Your task to perform on an android device: turn notification dots on Image 0: 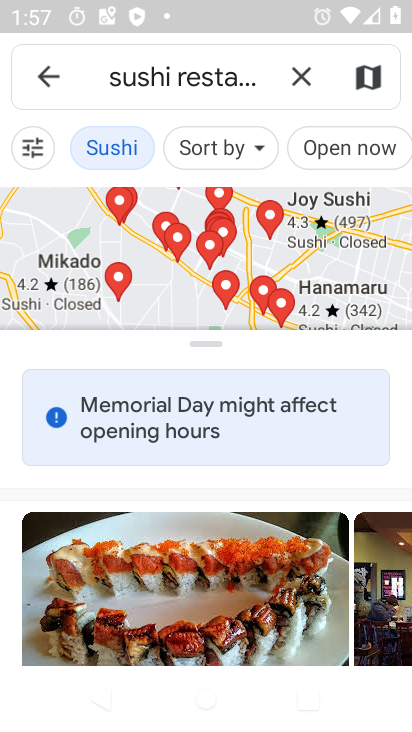
Step 0: press home button
Your task to perform on an android device: turn notification dots on Image 1: 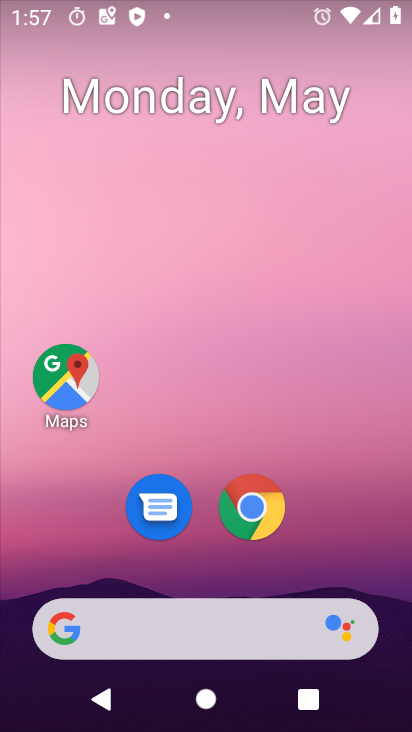
Step 1: drag from (225, 722) to (228, 278)
Your task to perform on an android device: turn notification dots on Image 2: 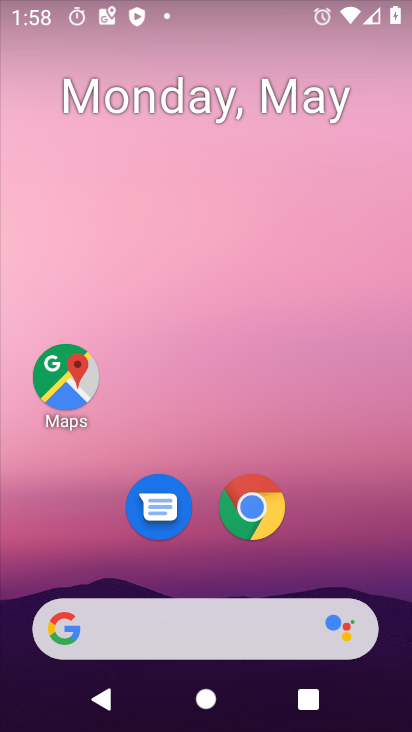
Step 2: drag from (231, 725) to (222, 161)
Your task to perform on an android device: turn notification dots on Image 3: 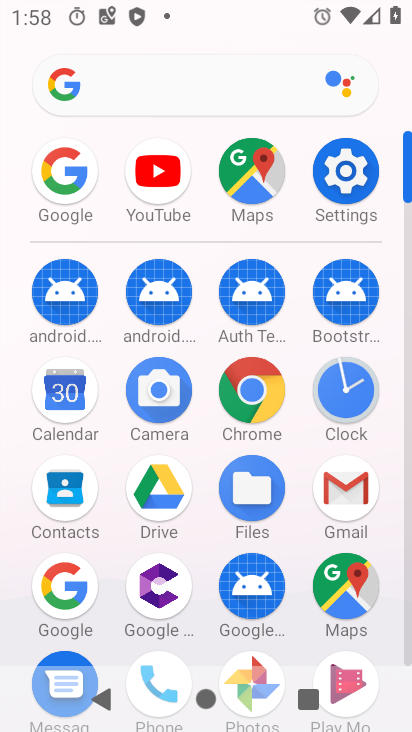
Step 3: click (349, 165)
Your task to perform on an android device: turn notification dots on Image 4: 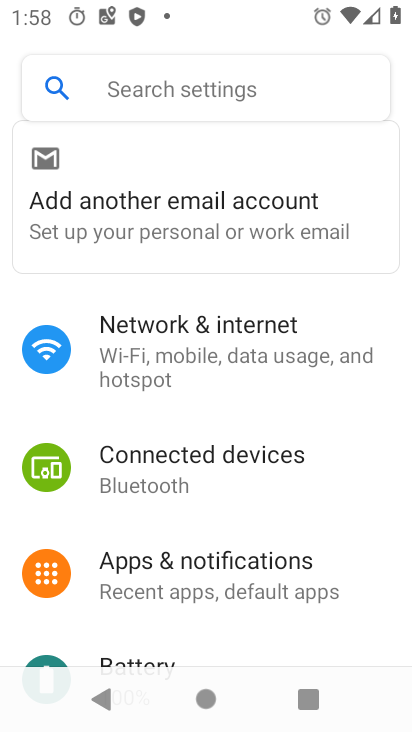
Step 4: click (209, 554)
Your task to perform on an android device: turn notification dots on Image 5: 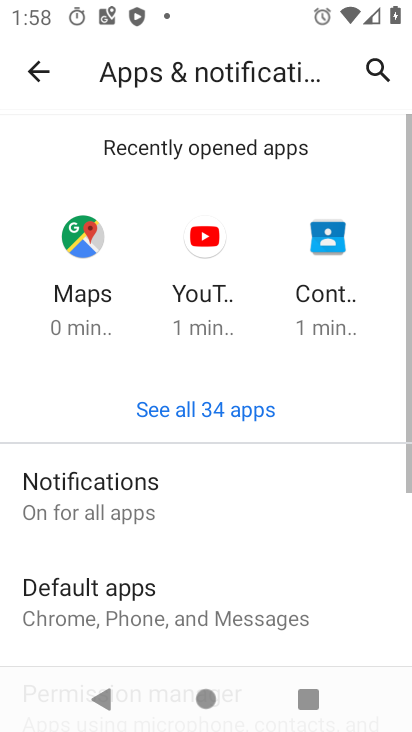
Step 5: drag from (196, 653) to (191, 606)
Your task to perform on an android device: turn notification dots on Image 6: 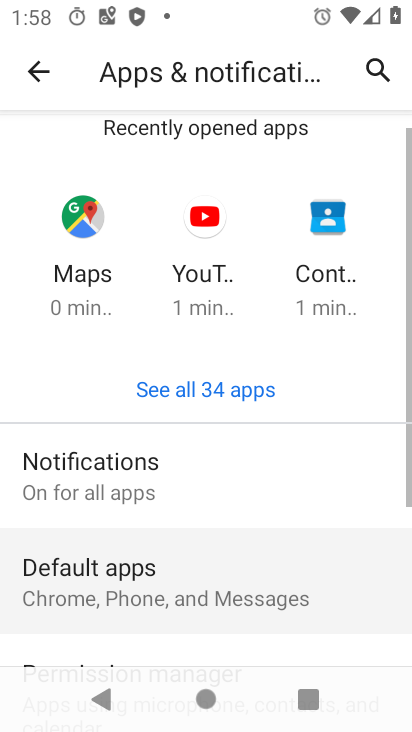
Step 6: drag from (184, 516) to (183, 345)
Your task to perform on an android device: turn notification dots on Image 7: 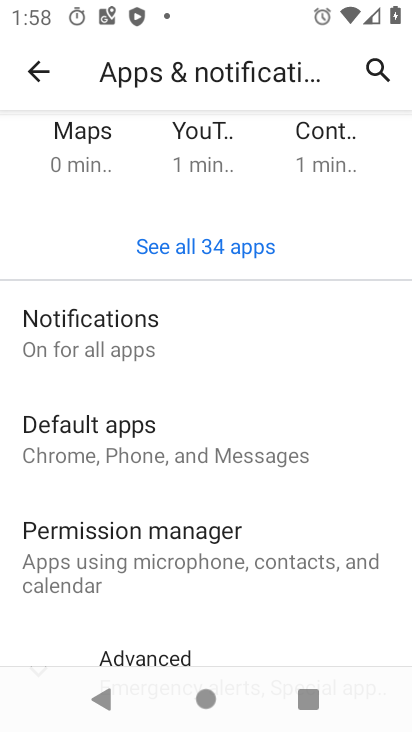
Step 7: click (86, 328)
Your task to perform on an android device: turn notification dots on Image 8: 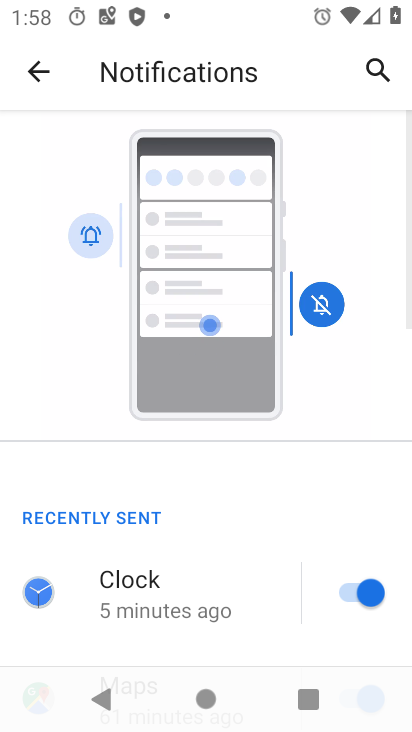
Step 8: drag from (236, 645) to (235, 546)
Your task to perform on an android device: turn notification dots on Image 9: 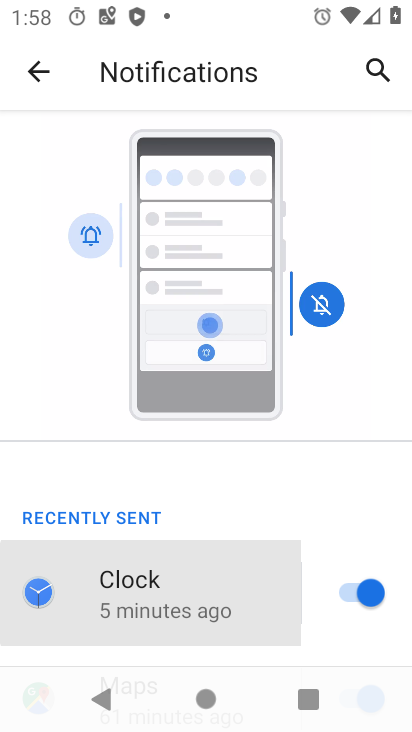
Step 9: drag from (230, 354) to (229, 300)
Your task to perform on an android device: turn notification dots on Image 10: 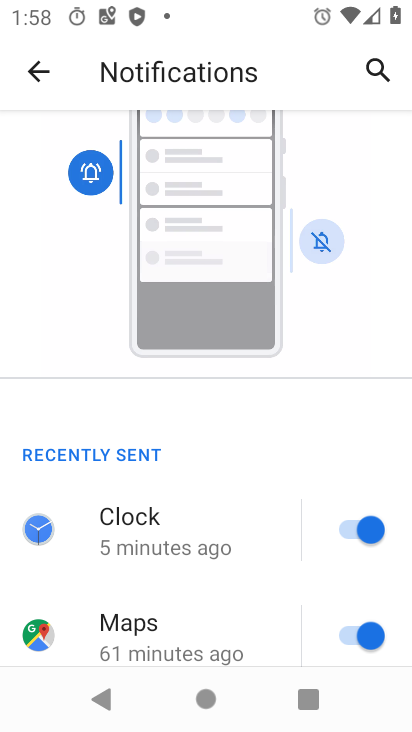
Step 10: drag from (239, 639) to (239, 557)
Your task to perform on an android device: turn notification dots on Image 11: 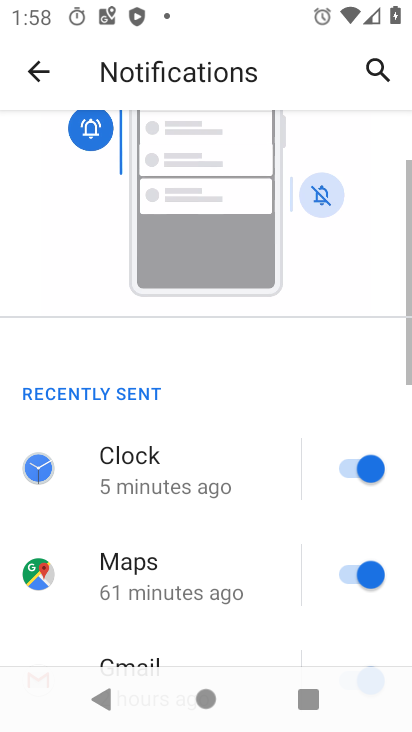
Step 11: drag from (238, 405) to (236, 323)
Your task to perform on an android device: turn notification dots on Image 12: 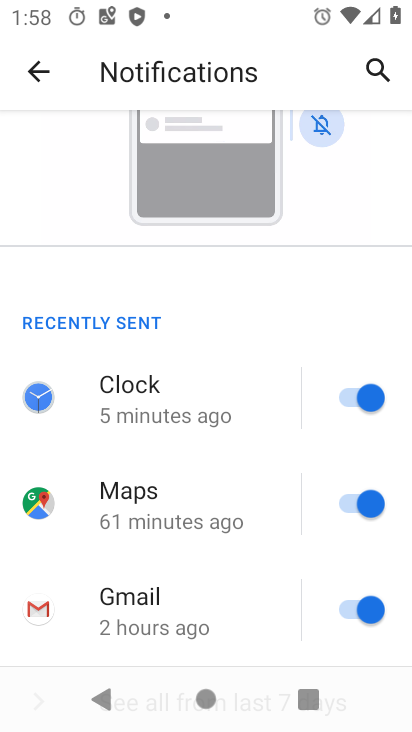
Step 12: drag from (236, 640) to (239, 295)
Your task to perform on an android device: turn notification dots on Image 13: 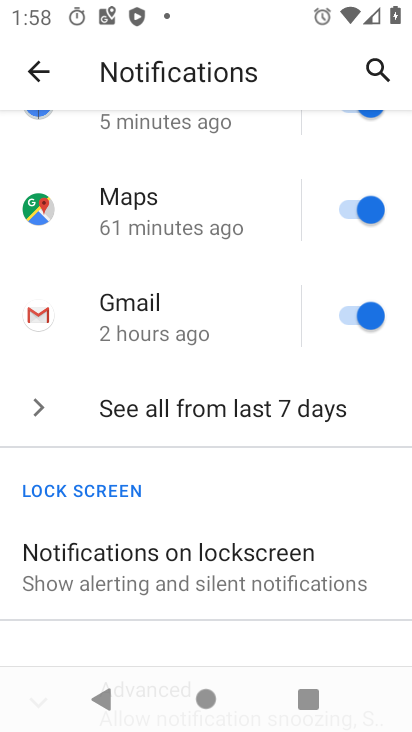
Step 13: drag from (270, 622) to (262, 342)
Your task to perform on an android device: turn notification dots on Image 14: 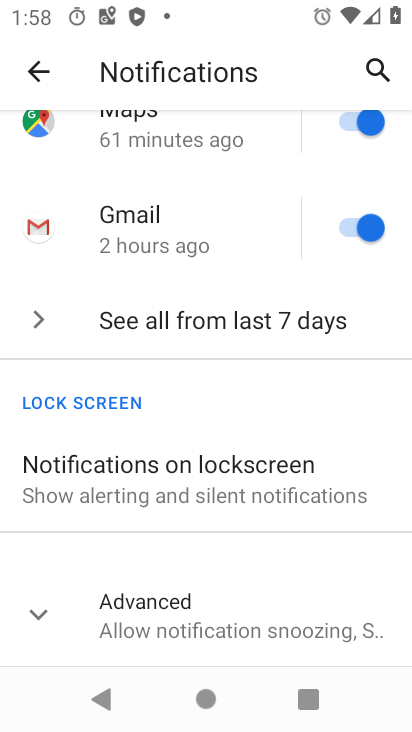
Step 14: click (154, 615)
Your task to perform on an android device: turn notification dots on Image 15: 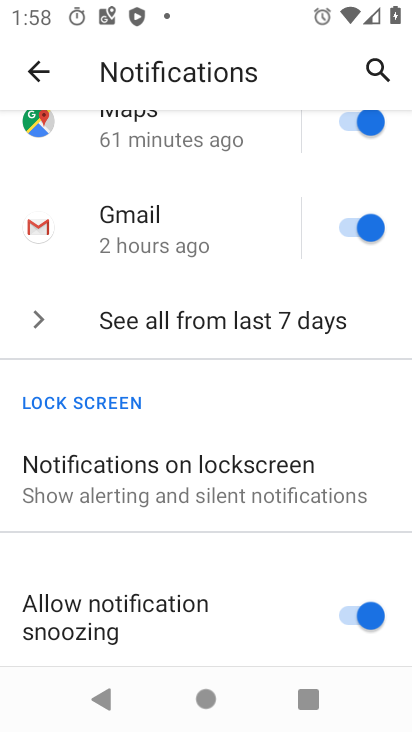
Step 15: drag from (210, 643) to (220, 345)
Your task to perform on an android device: turn notification dots on Image 16: 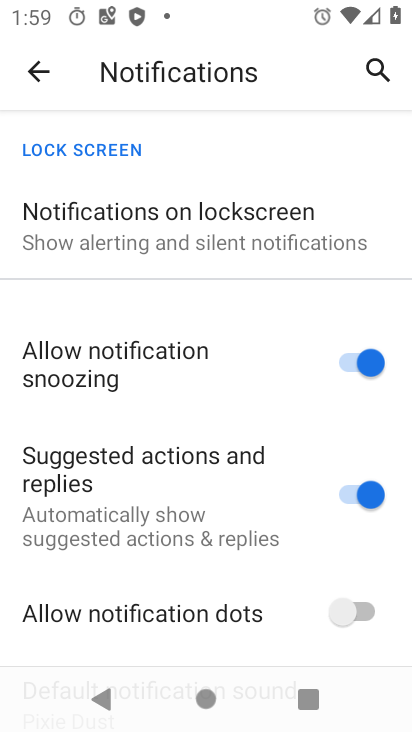
Step 16: click (359, 606)
Your task to perform on an android device: turn notification dots on Image 17: 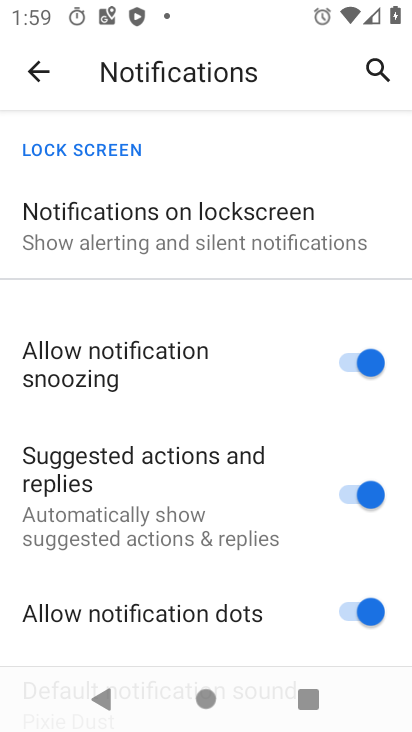
Step 17: task complete